Your task to perform on an android device: refresh tabs in the chrome app Image 0: 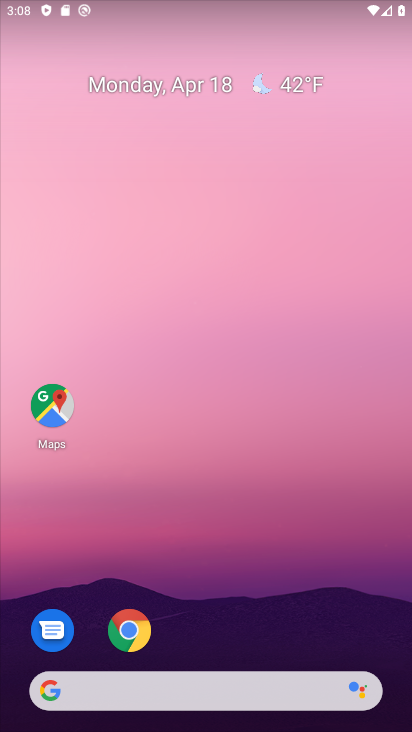
Step 0: click (336, 120)
Your task to perform on an android device: refresh tabs in the chrome app Image 1: 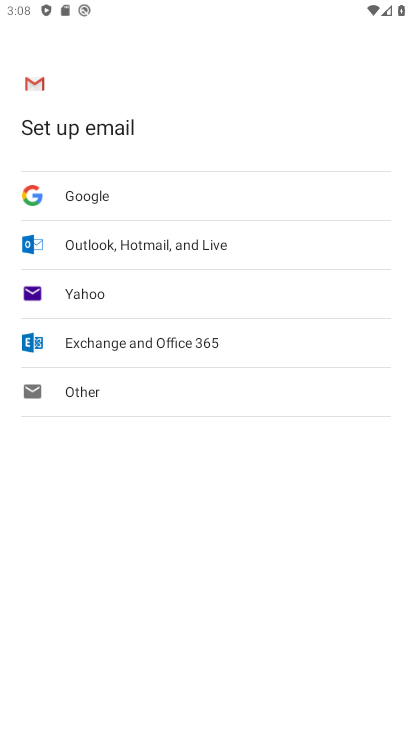
Step 1: press home button
Your task to perform on an android device: refresh tabs in the chrome app Image 2: 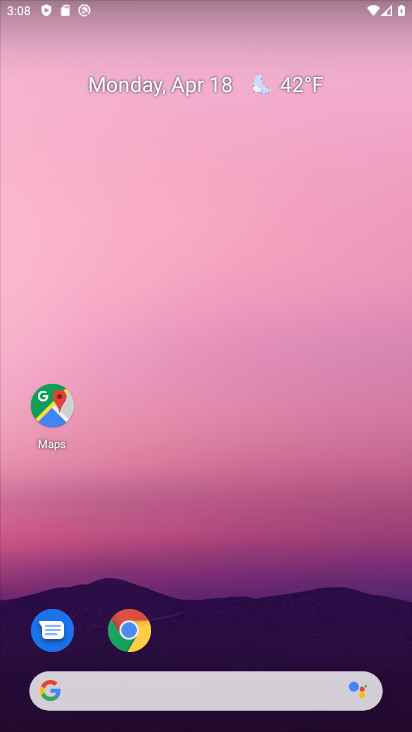
Step 2: drag from (186, 387) to (214, 209)
Your task to perform on an android device: refresh tabs in the chrome app Image 3: 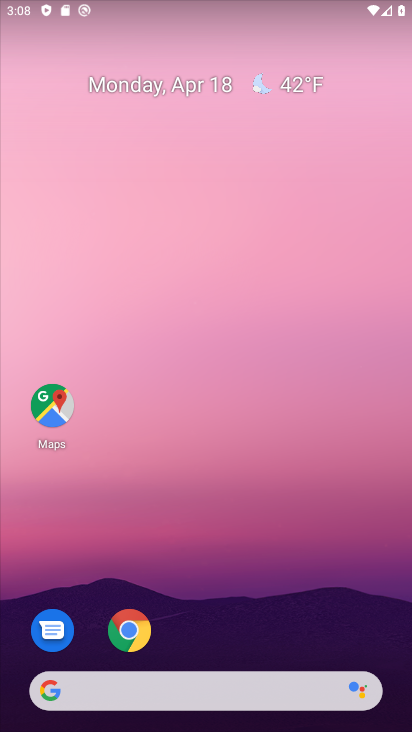
Step 3: drag from (212, 555) to (273, 163)
Your task to perform on an android device: refresh tabs in the chrome app Image 4: 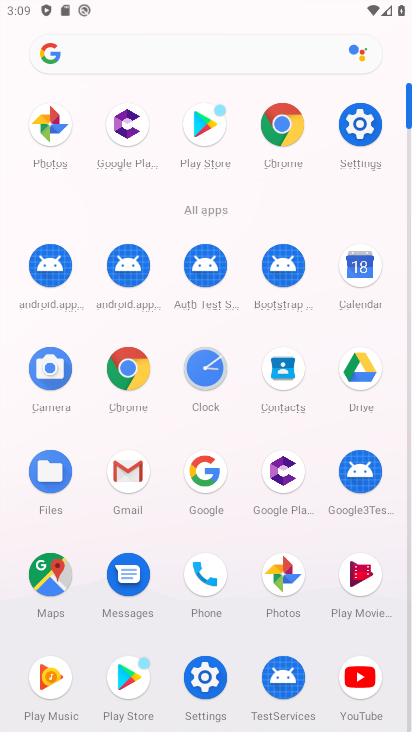
Step 4: click (288, 128)
Your task to perform on an android device: refresh tabs in the chrome app Image 5: 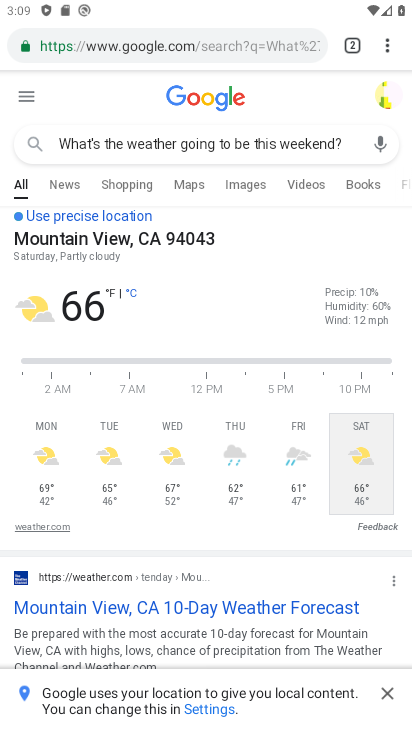
Step 5: click (393, 42)
Your task to perform on an android device: refresh tabs in the chrome app Image 6: 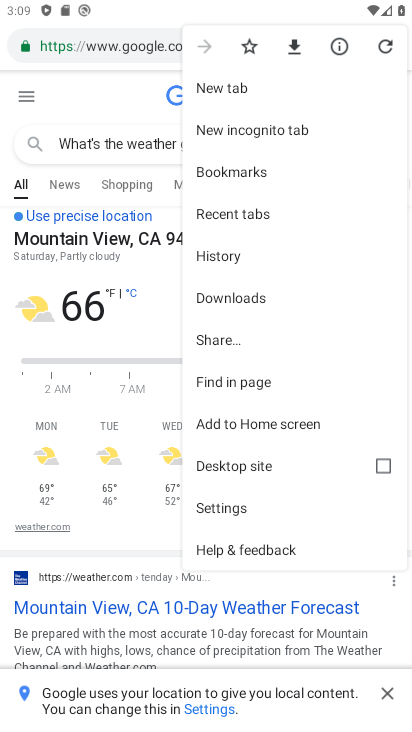
Step 6: click (376, 42)
Your task to perform on an android device: refresh tabs in the chrome app Image 7: 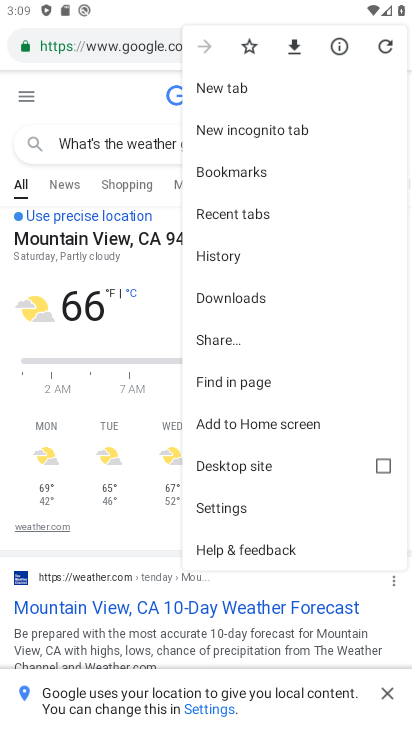
Step 7: task complete